Your task to perform on an android device: Open battery settings Image 0: 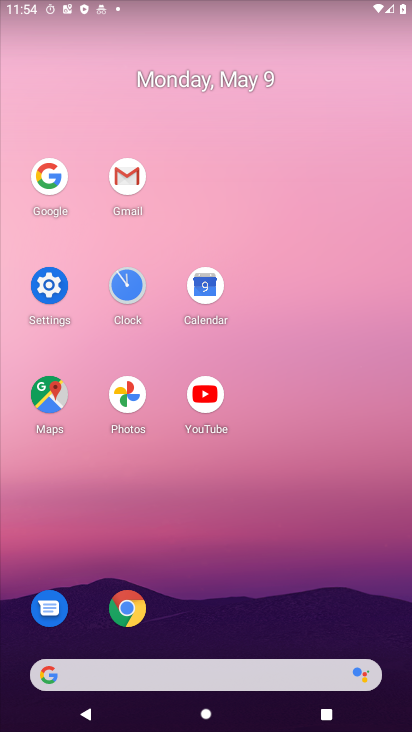
Step 0: click (60, 291)
Your task to perform on an android device: Open battery settings Image 1: 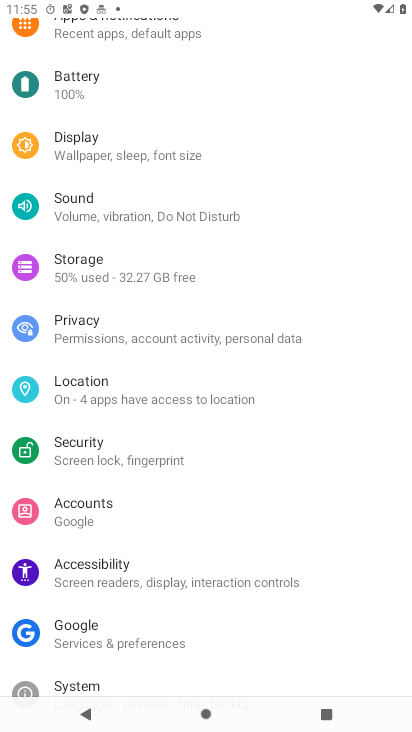
Step 1: drag from (330, 167) to (335, 526)
Your task to perform on an android device: Open battery settings Image 2: 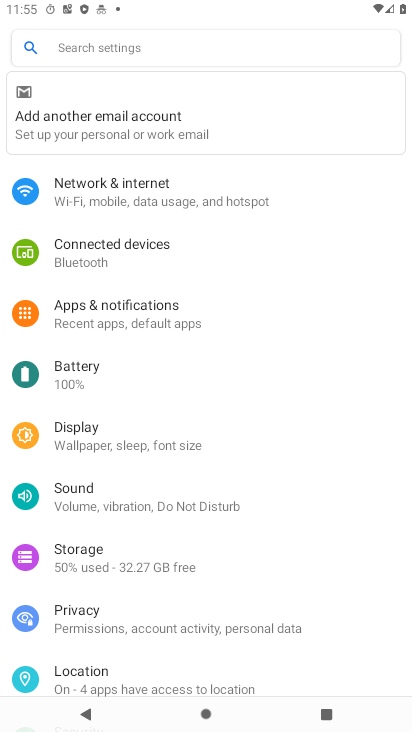
Step 2: click (136, 377)
Your task to perform on an android device: Open battery settings Image 3: 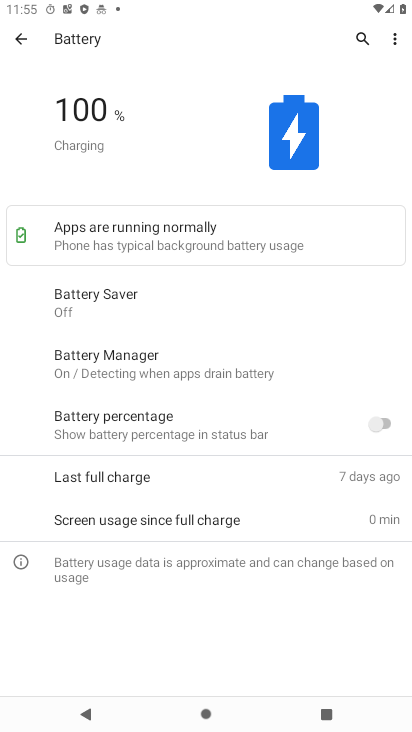
Step 3: task complete